Your task to perform on an android device: Open Wikipedia Image 0: 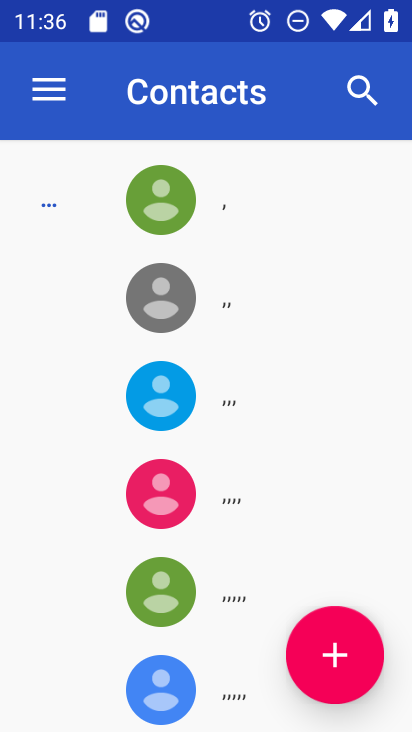
Step 0: press home button
Your task to perform on an android device: Open Wikipedia Image 1: 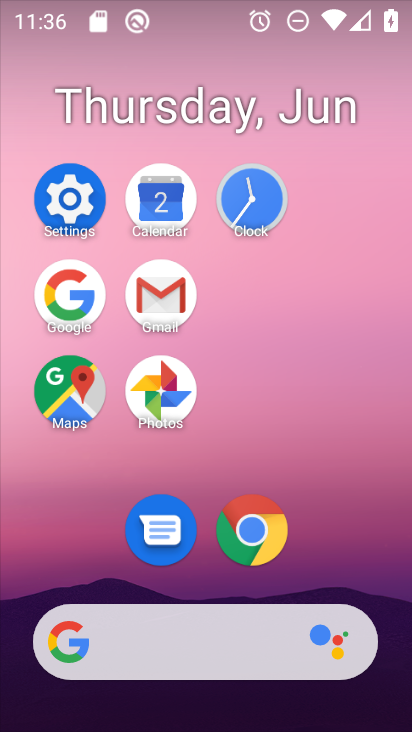
Step 1: click (79, 202)
Your task to perform on an android device: Open Wikipedia Image 2: 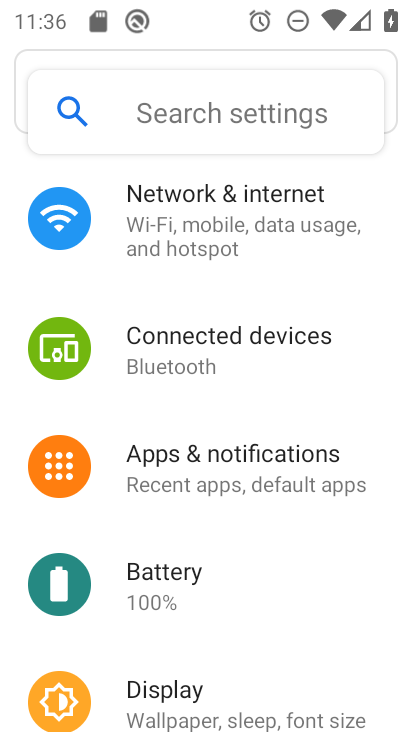
Step 2: press home button
Your task to perform on an android device: Open Wikipedia Image 3: 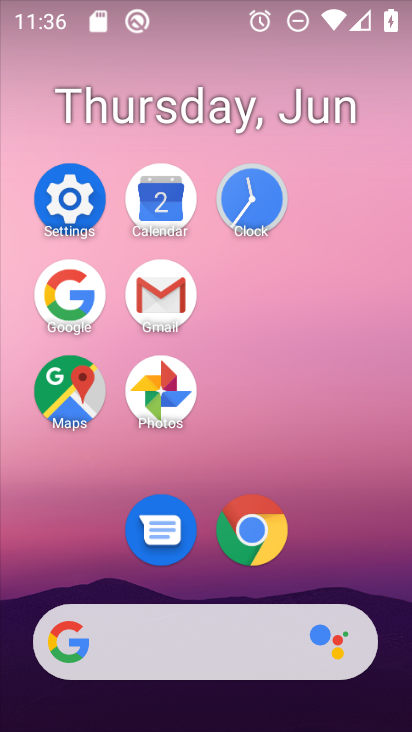
Step 3: click (273, 539)
Your task to perform on an android device: Open Wikipedia Image 4: 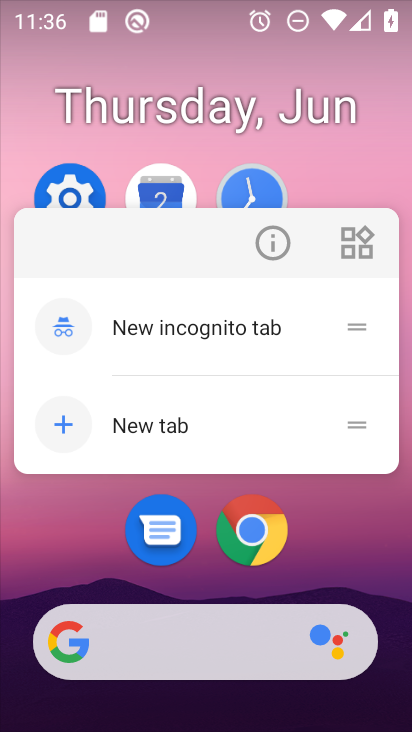
Step 4: click (247, 521)
Your task to perform on an android device: Open Wikipedia Image 5: 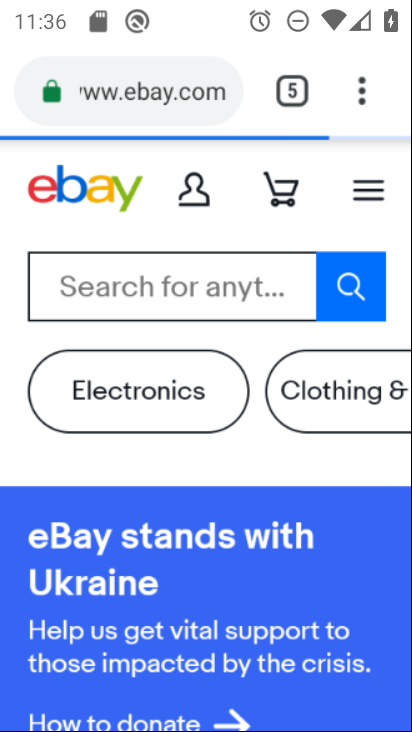
Step 5: click (305, 87)
Your task to perform on an android device: Open Wikipedia Image 6: 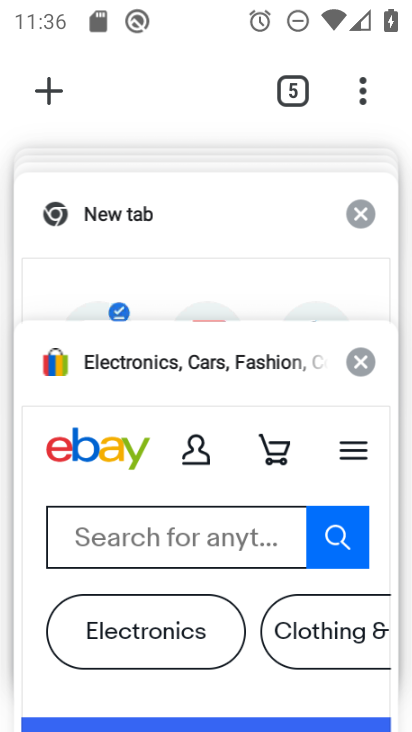
Step 6: drag from (174, 257) to (163, 568)
Your task to perform on an android device: Open Wikipedia Image 7: 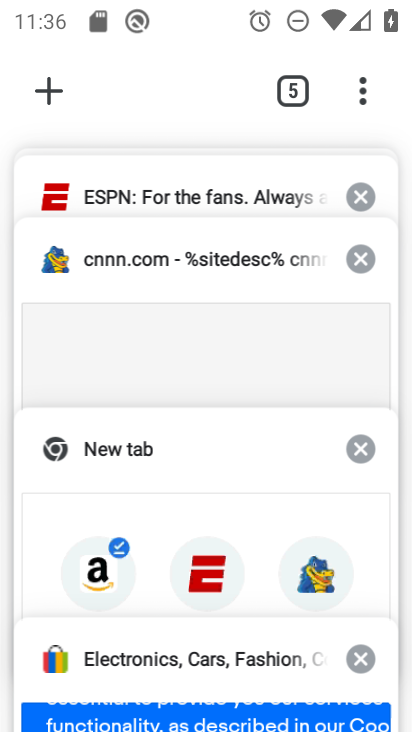
Step 7: drag from (205, 172) to (154, 629)
Your task to perform on an android device: Open Wikipedia Image 8: 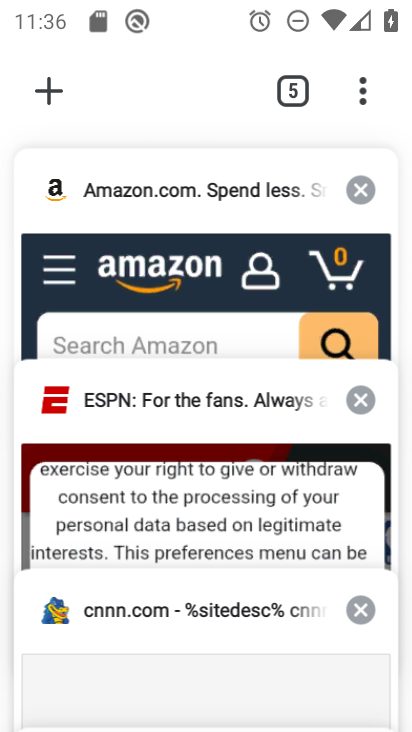
Step 8: click (43, 64)
Your task to perform on an android device: Open Wikipedia Image 9: 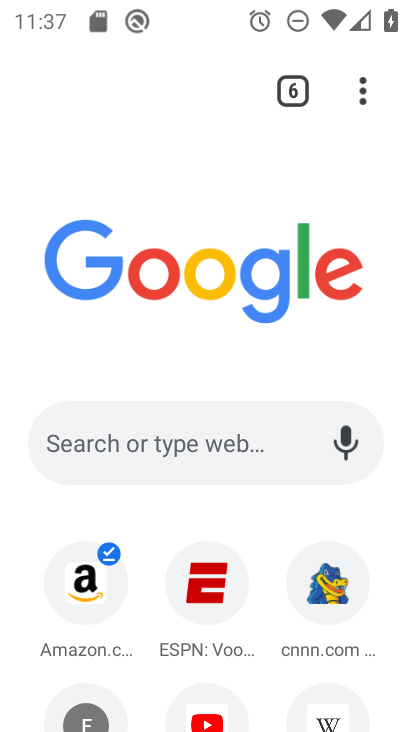
Step 9: click (346, 696)
Your task to perform on an android device: Open Wikipedia Image 10: 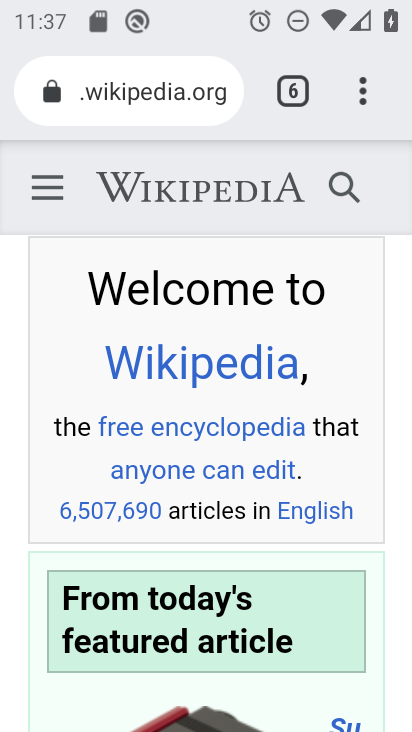
Step 10: task complete